Your task to perform on an android device: Open notification settings Image 0: 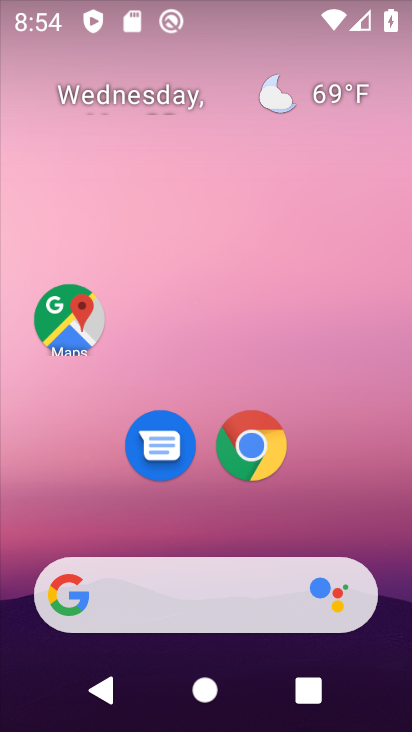
Step 0: drag from (348, 517) to (363, 85)
Your task to perform on an android device: Open notification settings Image 1: 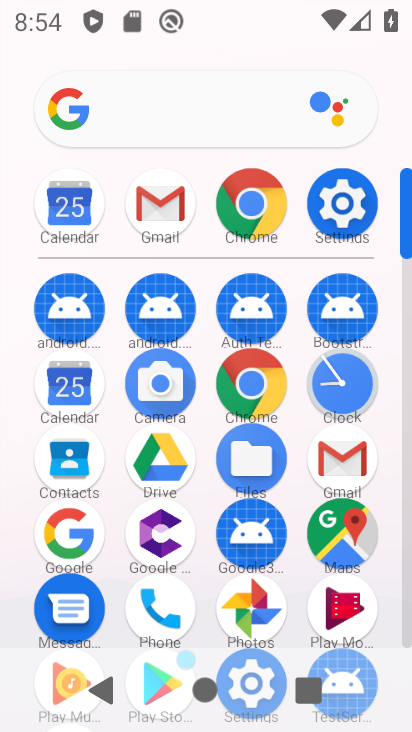
Step 1: click (334, 200)
Your task to perform on an android device: Open notification settings Image 2: 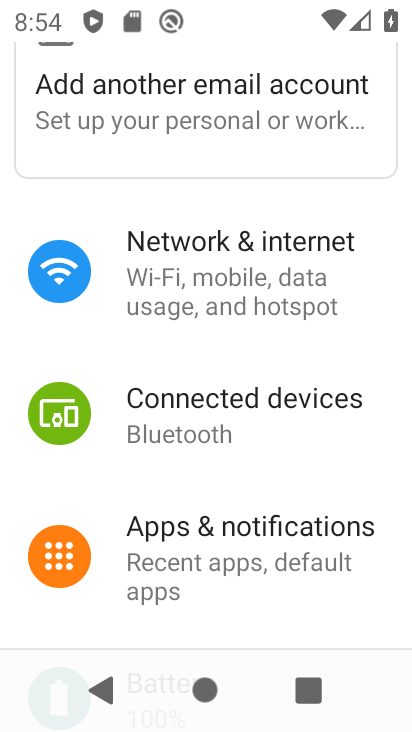
Step 2: click (268, 522)
Your task to perform on an android device: Open notification settings Image 3: 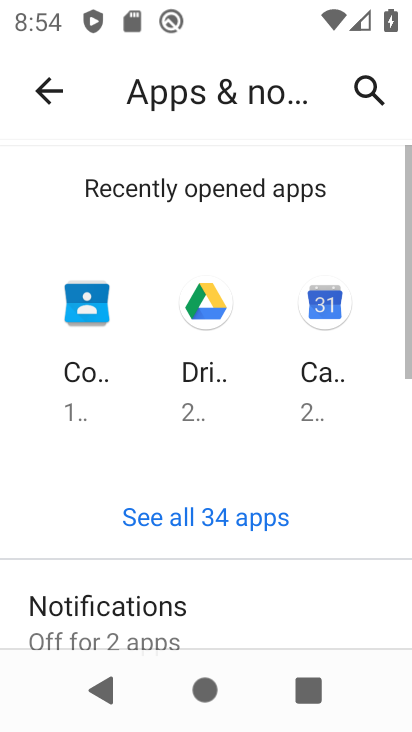
Step 3: drag from (326, 613) to (337, 224)
Your task to perform on an android device: Open notification settings Image 4: 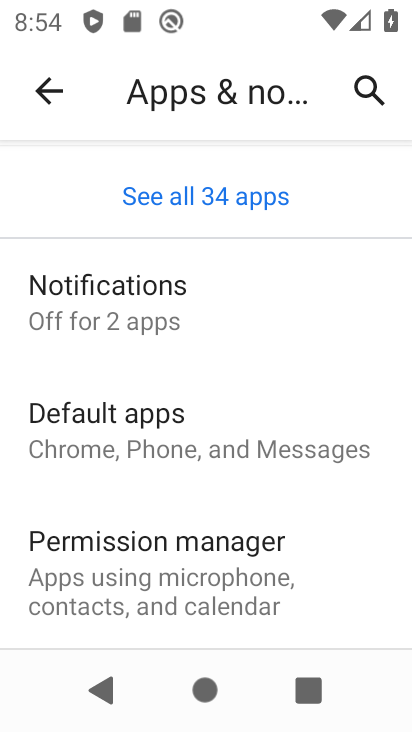
Step 4: click (81, 295)
Your task to perform on an android device: Open notification settings Image 5: 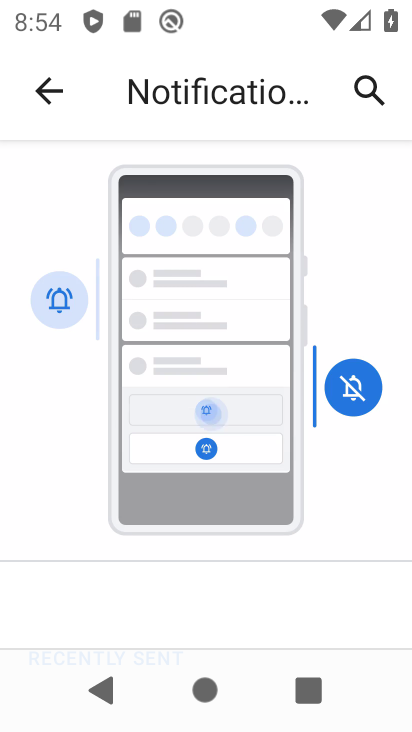
Step 5: task complete